Your task to perform on an android device: Open settings on Google Maps Image 0: 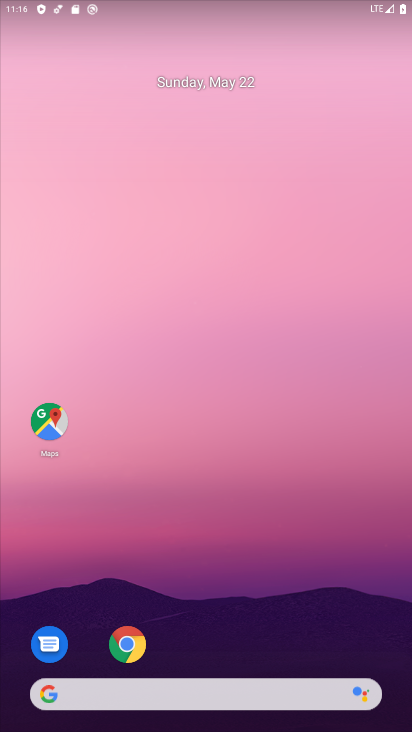
Step 0: click (40, 419)
Your task to perform on an android device: Open settings on Google Maps Image 1: 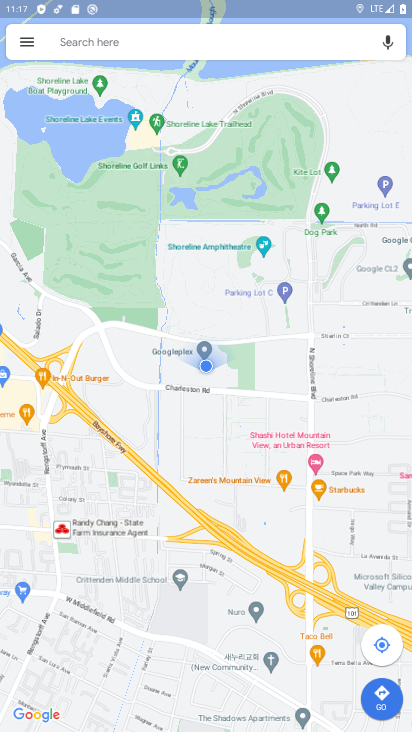
Step 1: click (31, 43)
Your task to perform on an android device: Open settings on Google Maps Image 2: 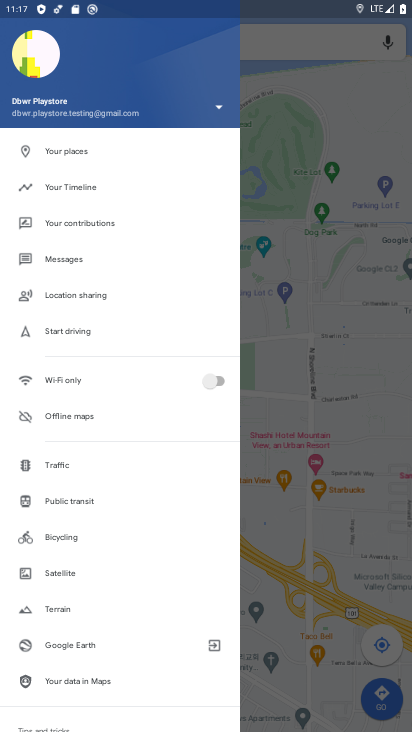
Step 2: drag from (149, 652) to (166, 204)
Your task to perform on an android device: Open settings on Google Maps Image 3: 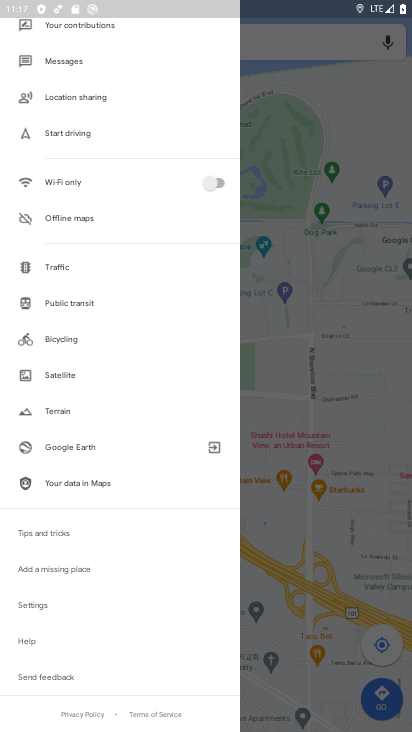
Step 3: click (40, 608)
Your task to perform on an android device: Open settings on Google Maps Image 4: 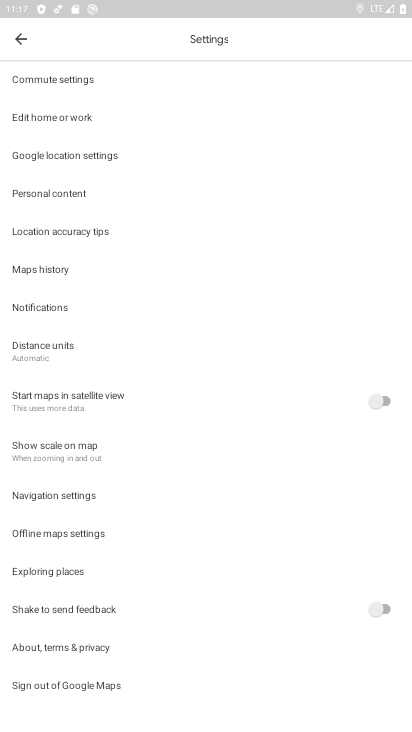
Step 4: task complete